Your task to perform on an android device: Go to Google maps Image 0: 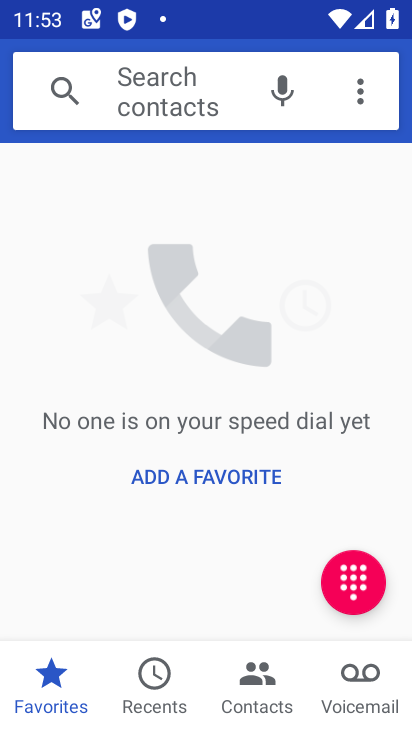
Step 0: press back button
Your task to perform on an android device: Go to Google maps Image 1: 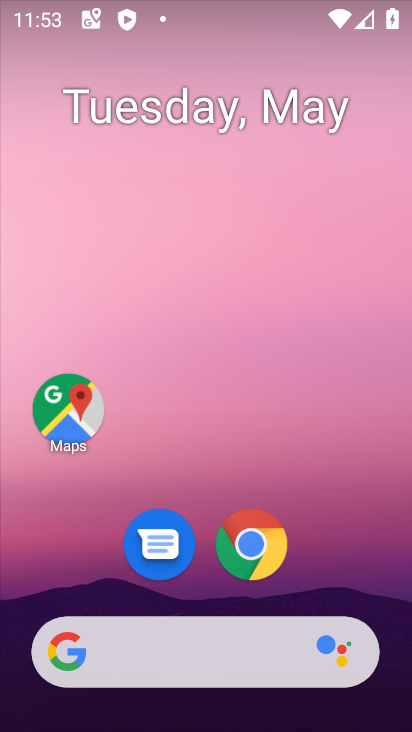
Step 1: drag from (371, 625) to (148, 42)
Your task to perform on an android device: Go to Google maps Image 2: 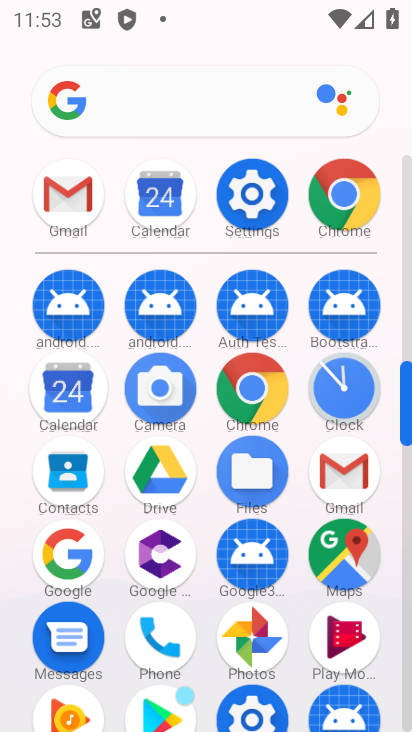
Step 2: click (331, 552)
Your task to perform on an android device: Go to Google maps Image 3: 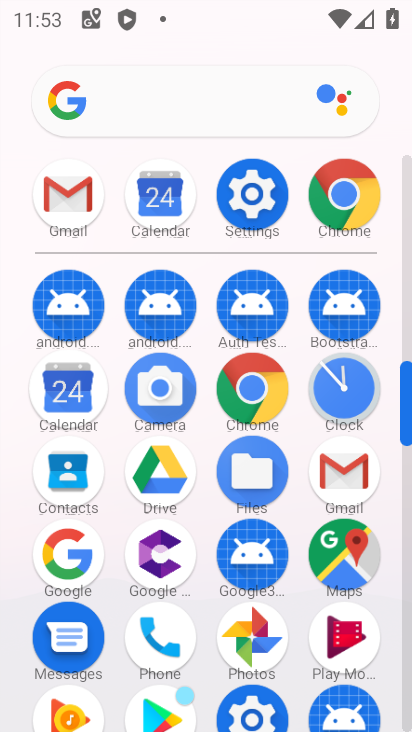
Step 3: click (334, 550)
Your task to perform on an android device: Go to Google maps Image 4: 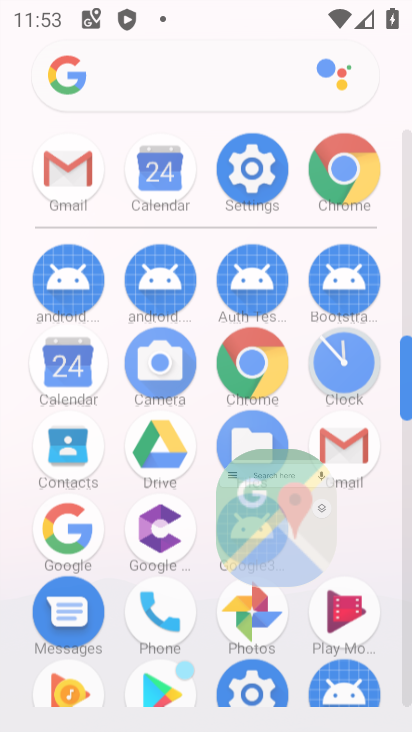
Step 4: click (334, 549)
Your task to perform on an android device: Go to Google maps Image 5: 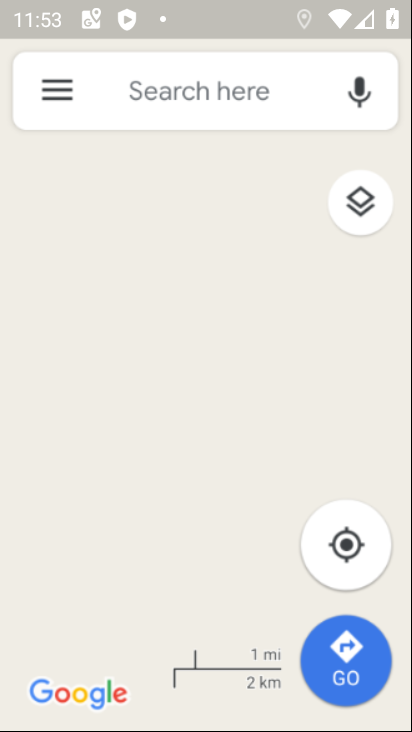
Step 5: click (335, 547)
Your task to perform on an android device: Go to Google maps Image 6: 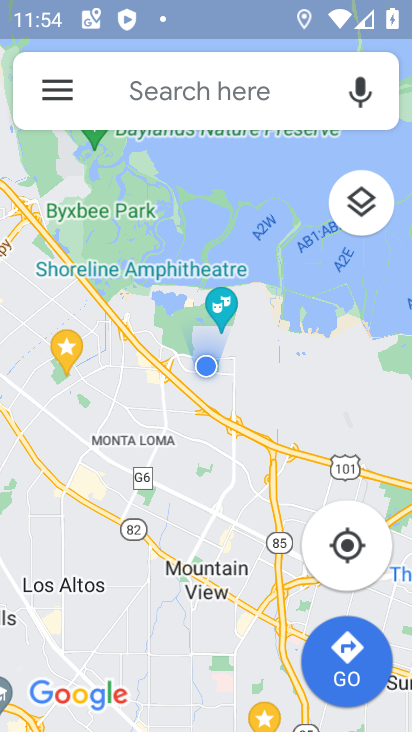
Step 6: task complete